Your task to perform on an android device: show emergency info Image 0: 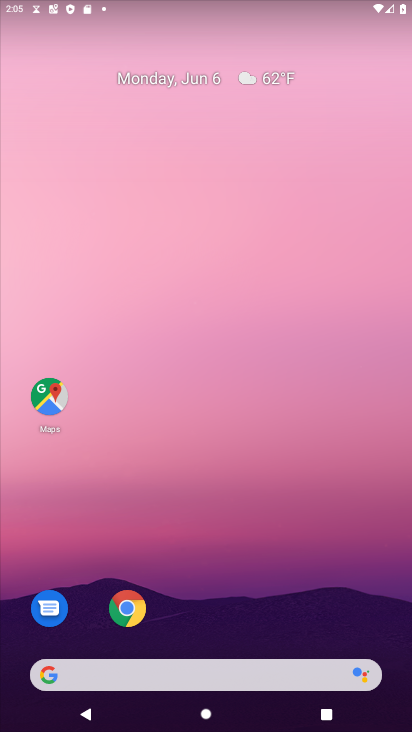
Step 0: drag from (285, 577) to (361, 28)
Your task to perform on an android device: show emergency info Image 1: 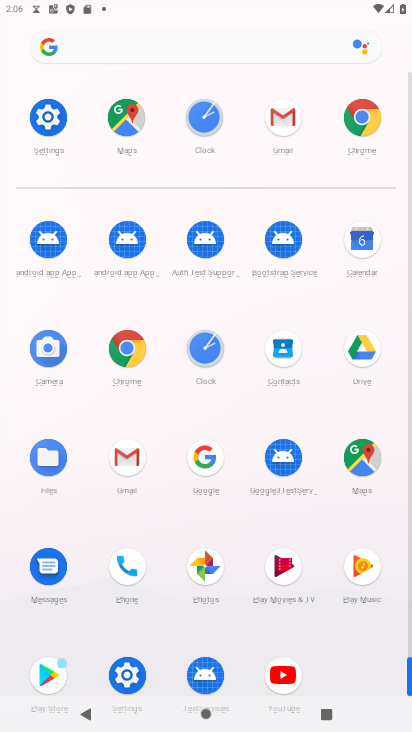
Step 1: click (58, 122)
Your task to perform on an android device: show emergency info Image 2: 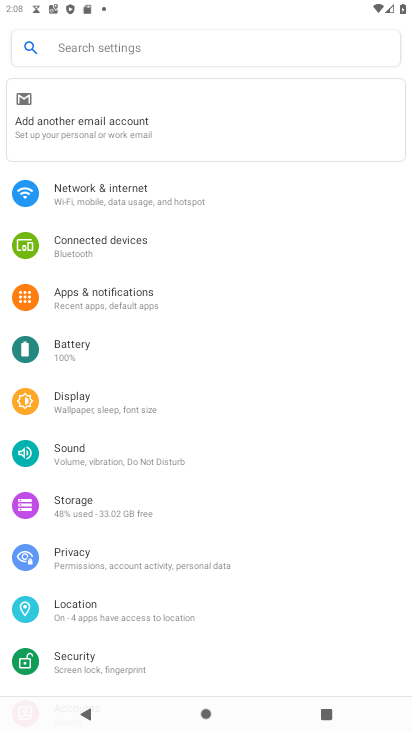
Step 2: drag from (188, 610) to (295, 78)
Your task to perform on an android device: show emergency info Image 3: 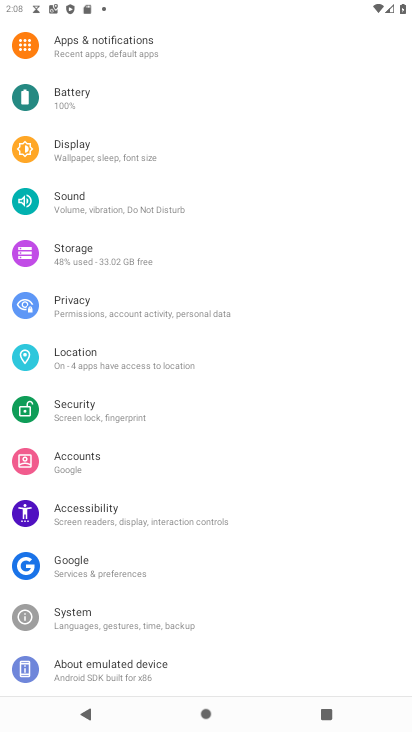
Step 3: drag from (134, 677) to (223, 261)
Your task to perform on an android device: show emergency info Image 4: 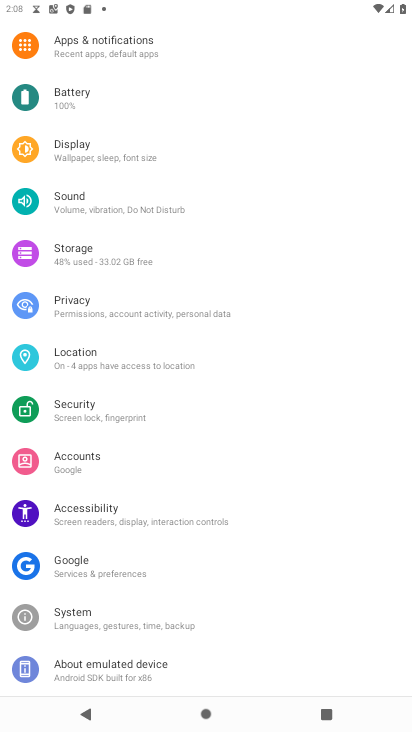
Step 4: click (100, 674)
Your task to perform on an android device: show emergency info Image 5: 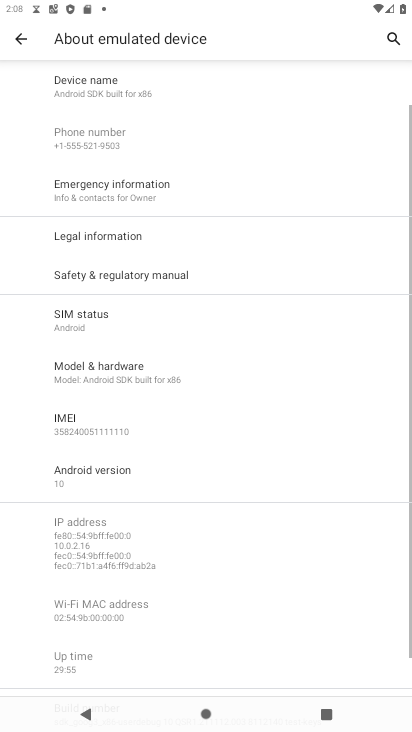
Step 5: drag from (126, 159) to (102, 653)
Your task to perform on an android device: show emergency info Image 6: 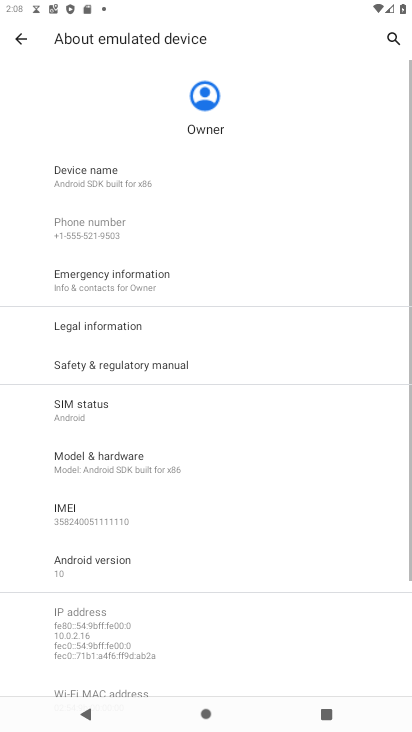
Step 6: click (104, 285)
Your task to perform on an android device: show emergency info Image 7: 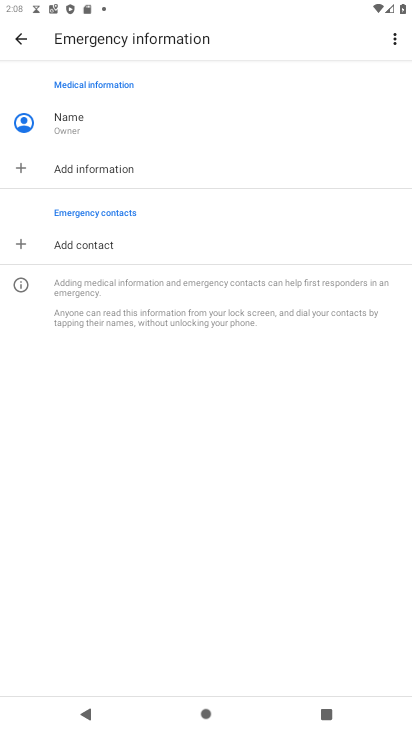
Step 7: task complete